Your task to perform on an android device: Open the calendar app, open the side menu, and click the "Day" option Image 0: 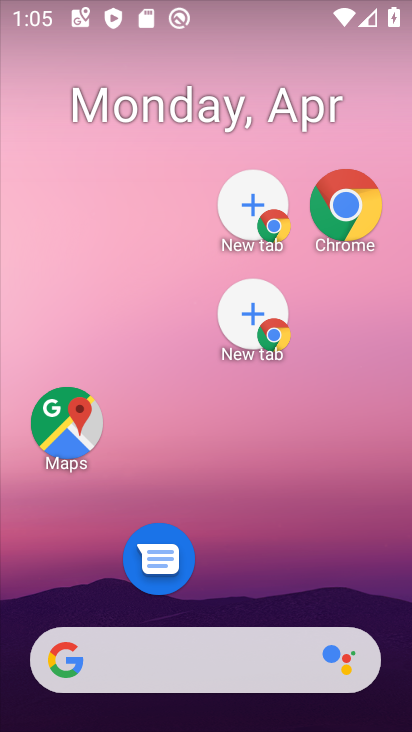
Step 0: drag from (50, 369) to (118, 158)
Your task to perform on an android device: Open the calendar app, open the side menu, and click the "Day" option Image 1: 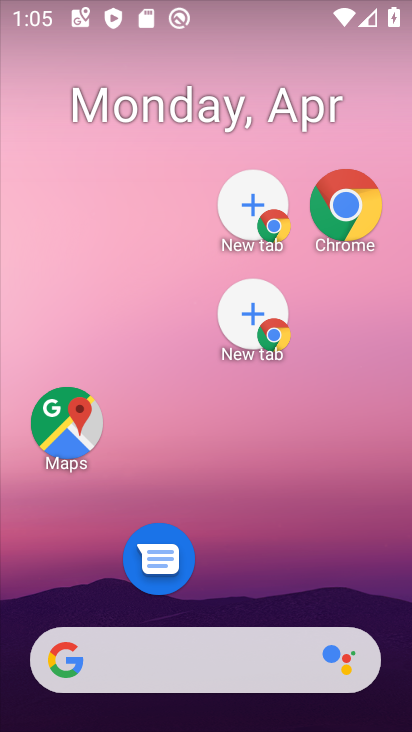
Step 1: drag from (57, 267) to (70, 204)
Your task to perform on an android device: Open the calendar app, open the side menu, and click the "Day" option Image 2: 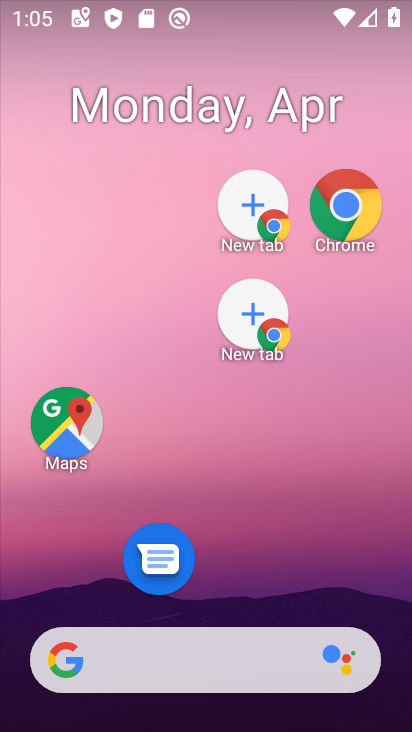
Step 2: drag from (91, 378) to (148, 158)
Your task to perform on an android device: Open the calendar app, open the side menu, and click the "Day" option Image 3: 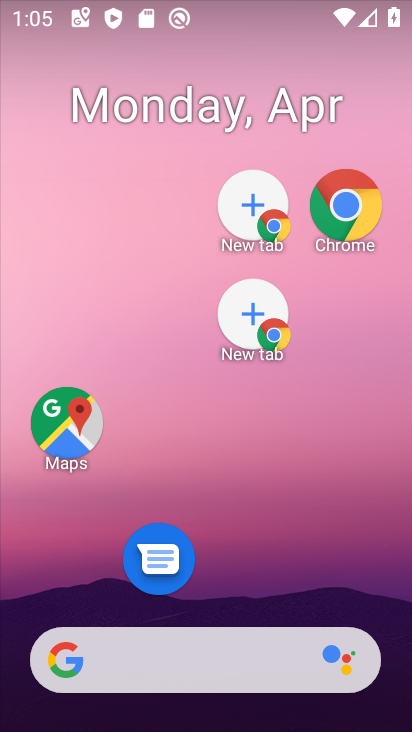
Step 3: drag from (0, 621) to (128, 232)
Your task to perform on an android device: Open the calendar app, open the side menu, and click the "Day" option Image 4: 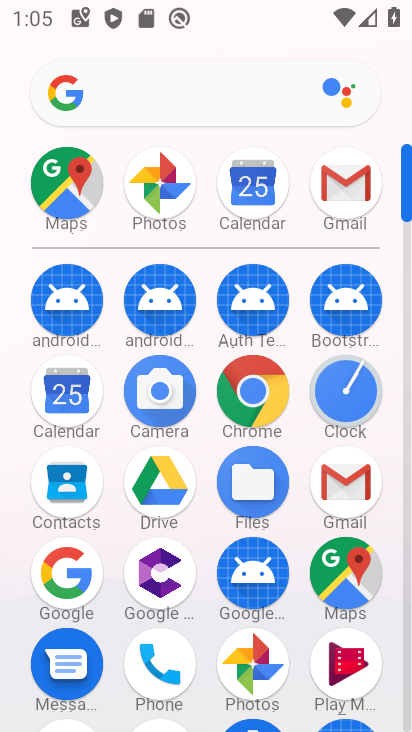
Step 4: click (67, 386)
Your task to perform on an android device: Open the calendar app, open the side menu, and click the "Day" option Image 5: 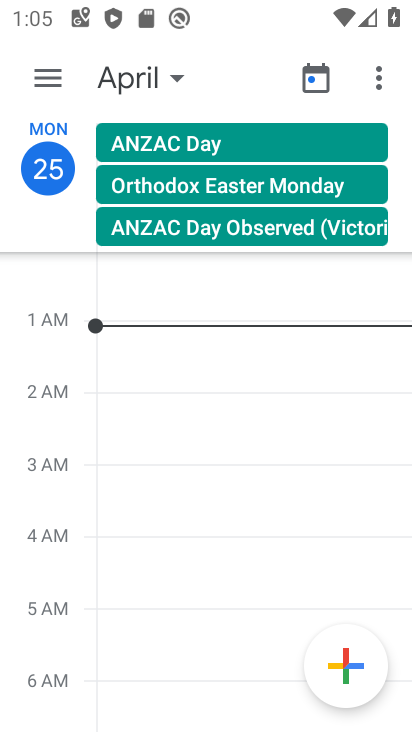
Step 5: click (33, 74)
Your task to perform on an android device: Open the calendar app, open the side menu, and click the "Day" option Image 6: 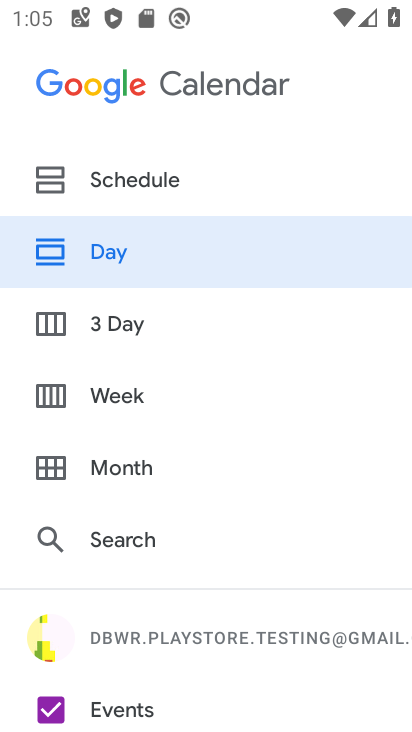
Step 6: click (172, 253)
Your task to perform on an android device: Open the calendar app, open the side menu, and click the "Day" option Image 7: 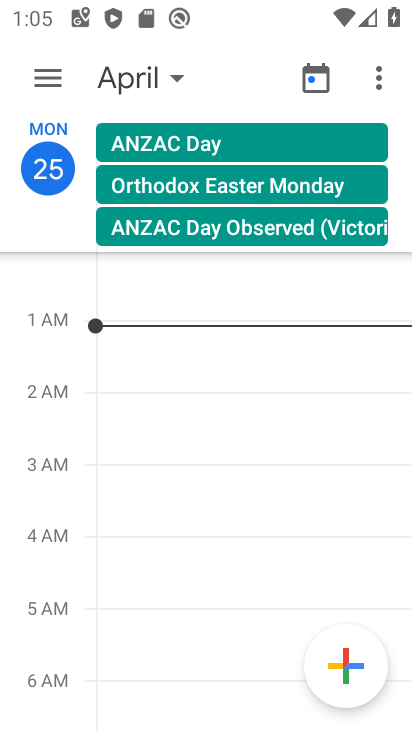
Step 7: task complete